Your task to perform on an android device: clear all cookies in the chrome app Image 0: 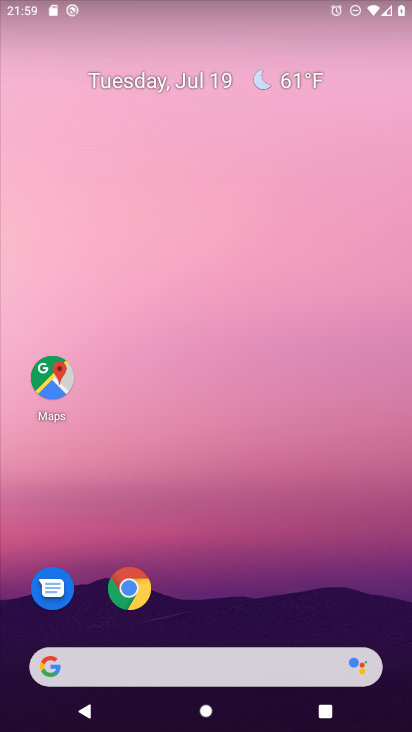
Step 0: press home button
Your task to perform on an android device: clear all cookies in the chrome app Image 1: 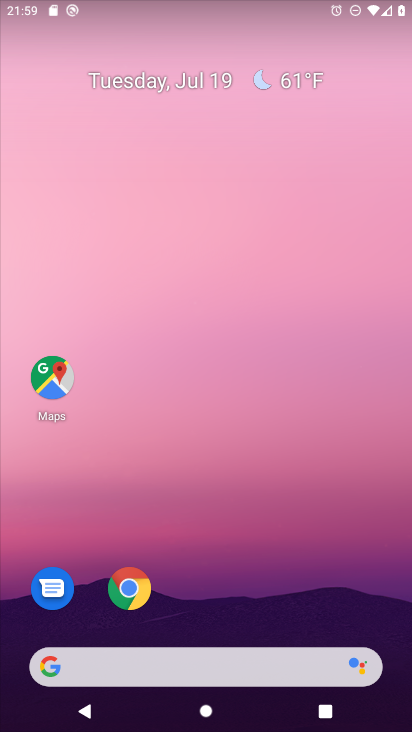
Step 1: click (122, 582)
Your task to perform on an android device: clear all cookies in the chrome app Image 2: 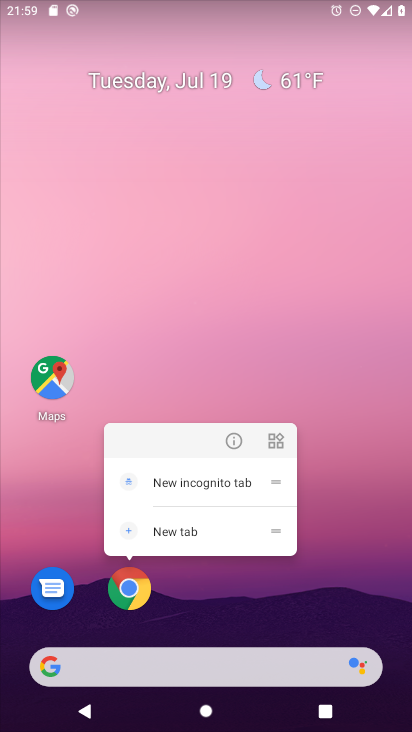
Step 2: click (130, 581)
Your task to perform on an android device: clear all cookies in the chrome app Image 3: 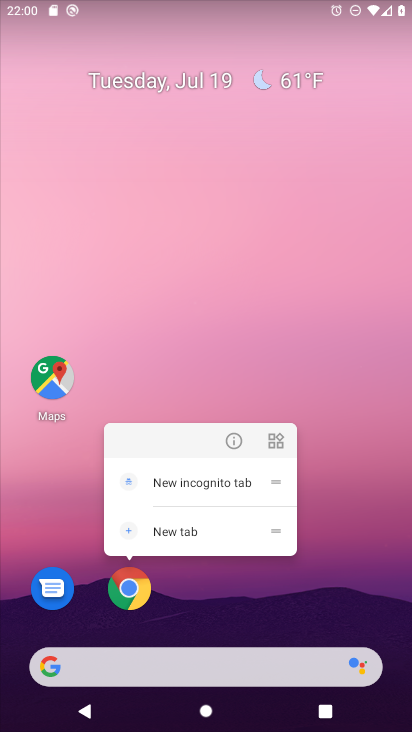
Step 3: click (124, 585)
Your task to perform on an android device: clear all cookies in the chrome app Image 4: 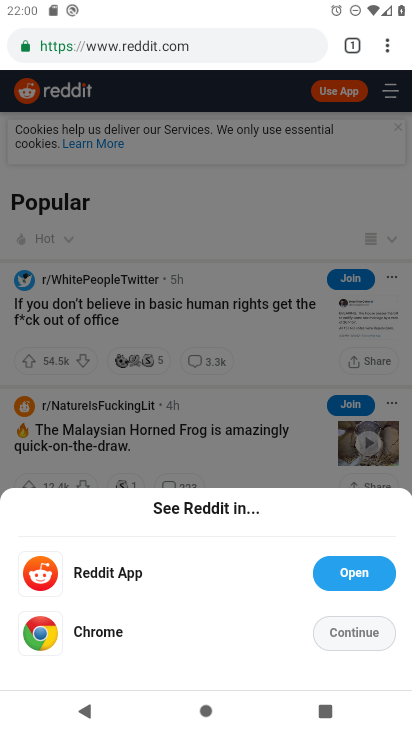
Step 4: click (354, 629)
Your task to perform on an android device: clear all cookies in the chrome app Image 5: 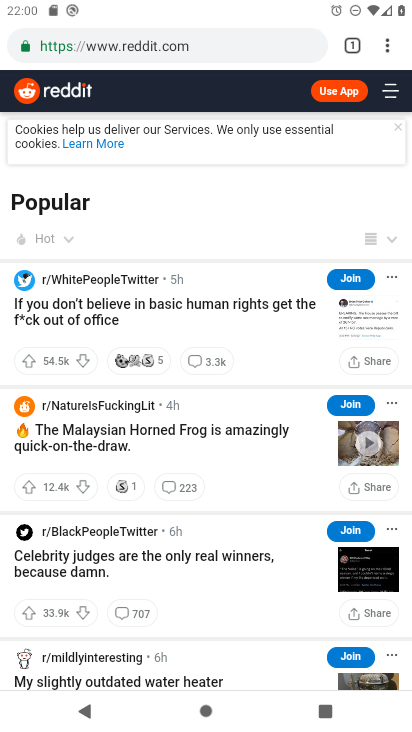
Step 5: click (385, 44)
Your task to perform on an android device: clear all cookies in the chrome app Image 6: 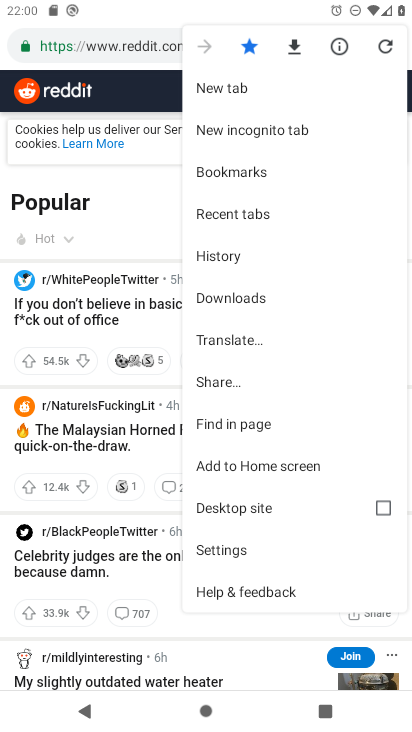
Step 6: click (259, 247)
Your task to perform on an android device: clear all cookies in the chrome app Image 7: 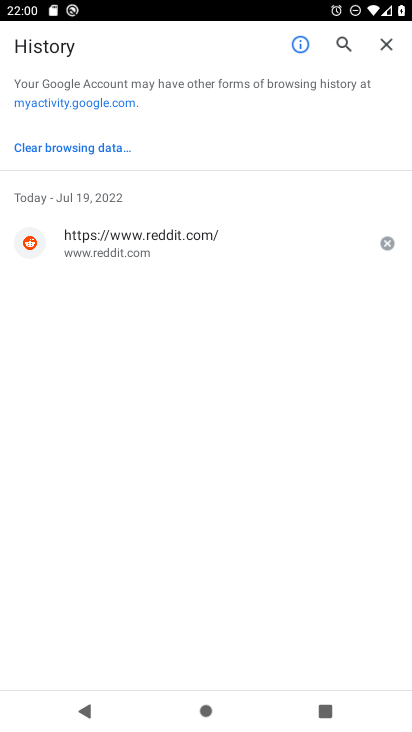
Step 7: click (68, 141)
Your task to perform on an android device: clear all cookies in the chrome app Image 8: 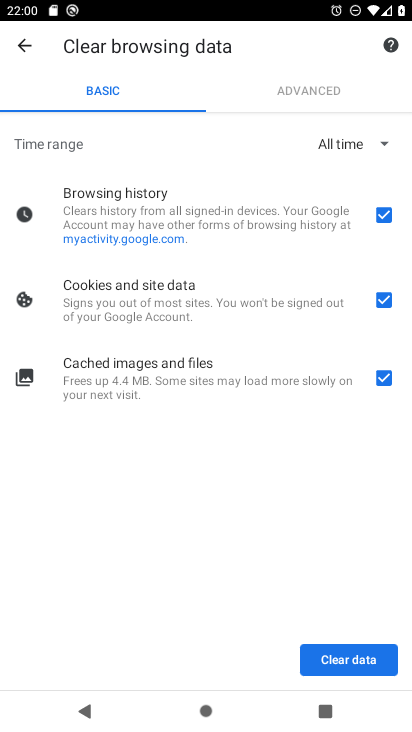
Step 8: click (346, 645)
Your task to perform on an android device: clear all cookies in the chrome app Image 9: 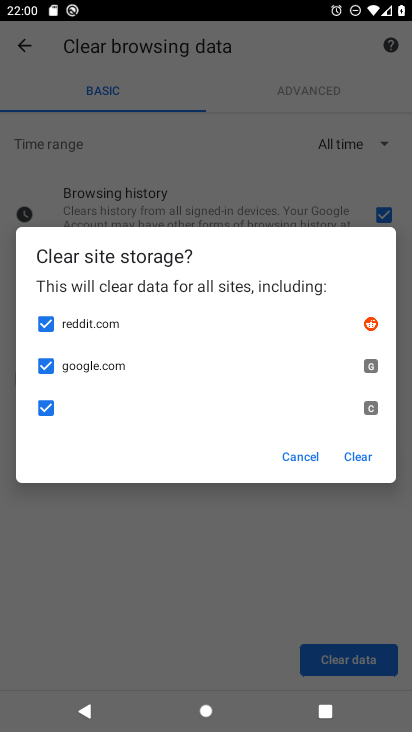
Step 9: click (366, 449)
Your task to perform on an android device: clear all cookies in the chrome app Image 10: 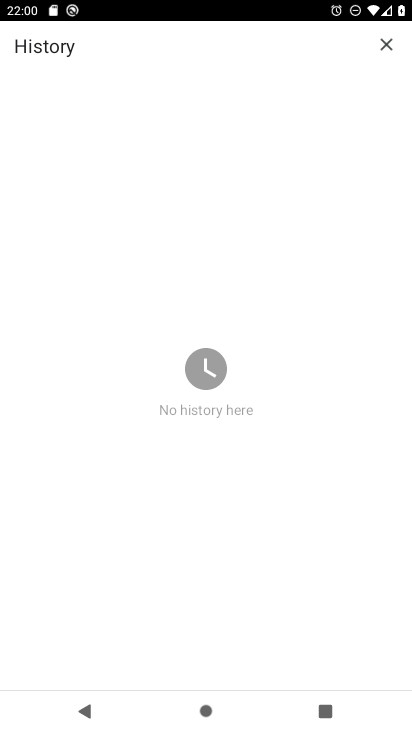
Step 10: task complete